Your task to perform on an android device: turn pop-ups on in chrome Image 0: 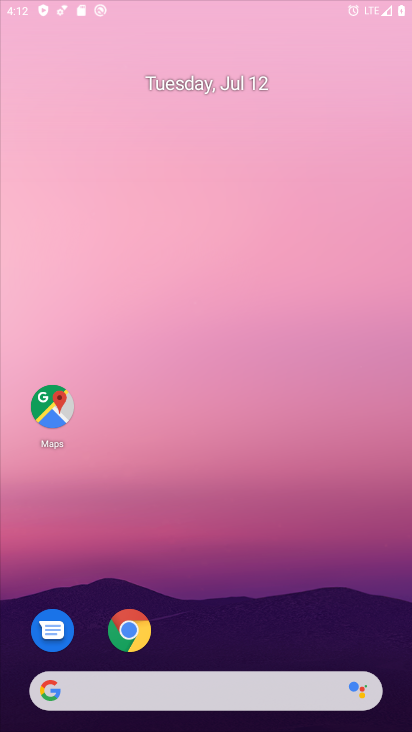
Step 0: click (173, 150)
Your task to perform on an android device: turn pop-ups on in chrome Image 1: 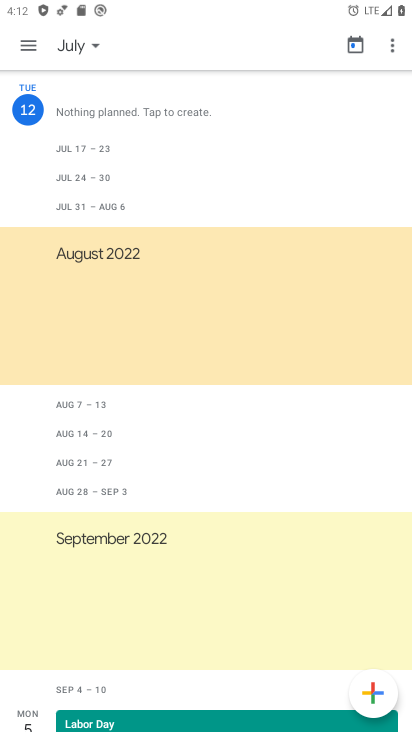
Step 1: drag from (171, 256) to (147, 109)
Your task to perform on an android device: turn pop-ups on in chrome Image 2: 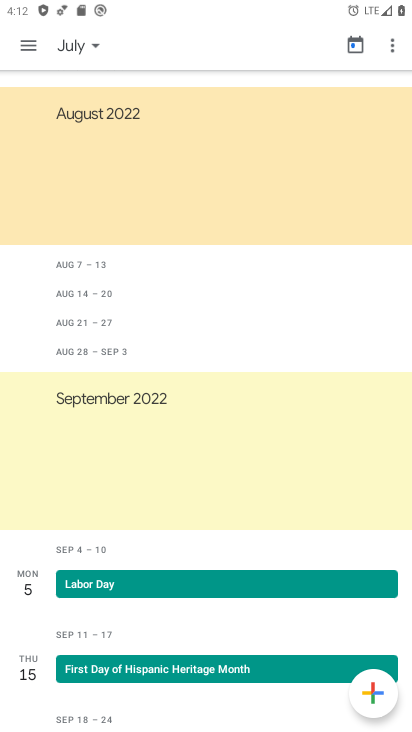
Step 2: press back button
Your task to perform on an android device: turn pop-ups on in chrome Image 3: 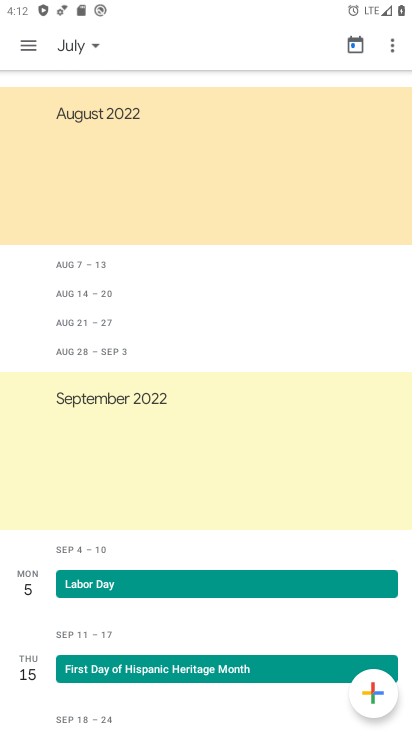
Step 3: press back button
Your task to perform on an android device: turn pop-ups on in chrome Image 4: 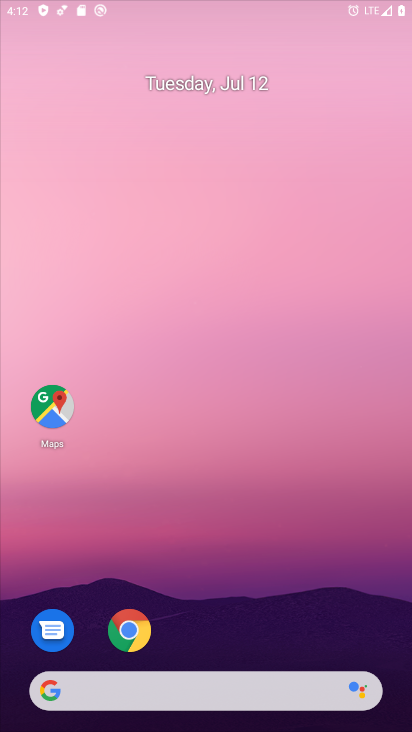
Step 4: press back button
Your task to perform on an android device: turn pop-ups on in chrome Image 5: 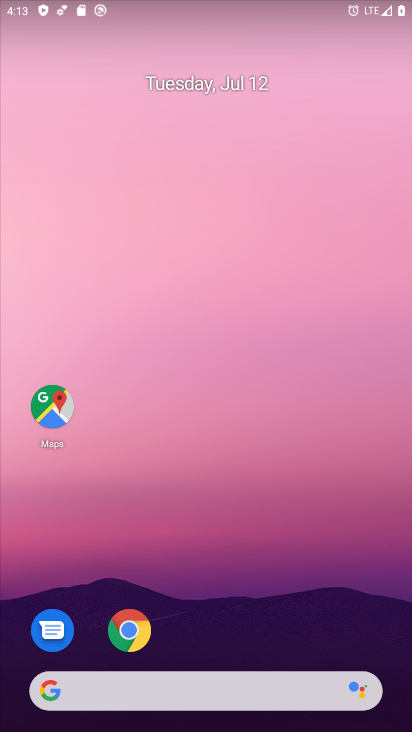
Step 5: drag from (295, 651) to (249, 183)
Your task to perform on an android device: turn pop-ups on in chrome Image 6: 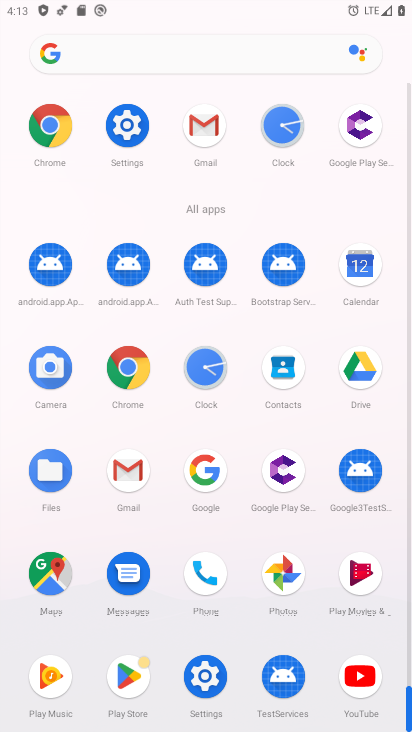
Step 6: click (60, 145)
Your task to perform on an android device: turn pop-ups on in chrome Image 7: 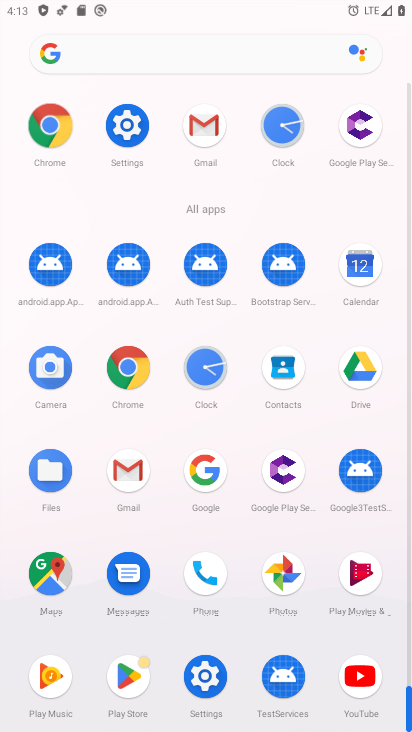
Step 7: click (52, 128)
Your task to perform on an android device: turn pop-ups on in chrome Image 8: 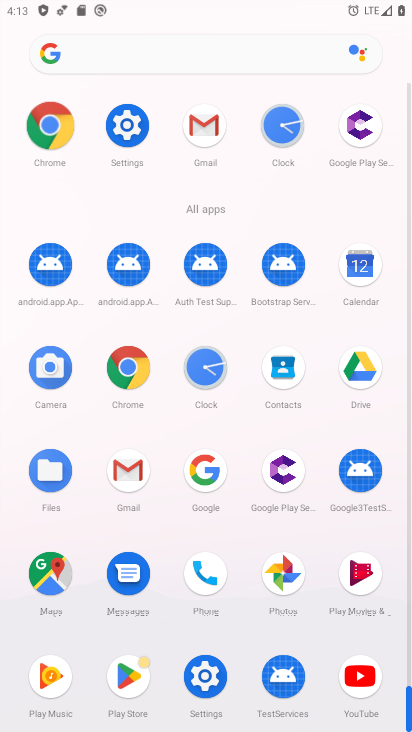
Step 8: click (57, 131)
Your task to perform on an android device: turn pop-ups on in chrome Image 9: 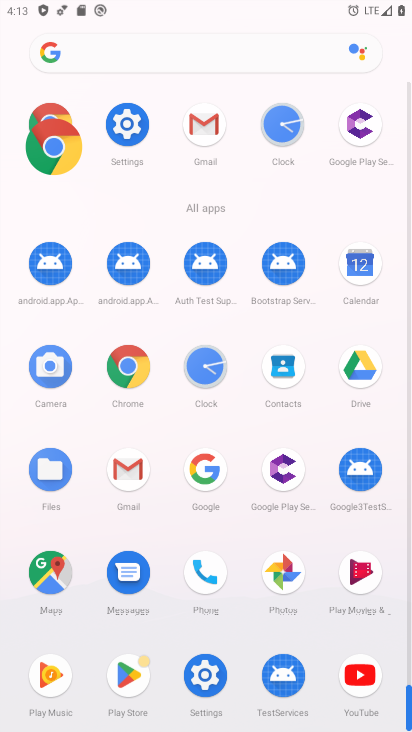
Step 9: click (63, 133)
Your task to perform on an android device: turn pop-ups on in chrome Image 10: 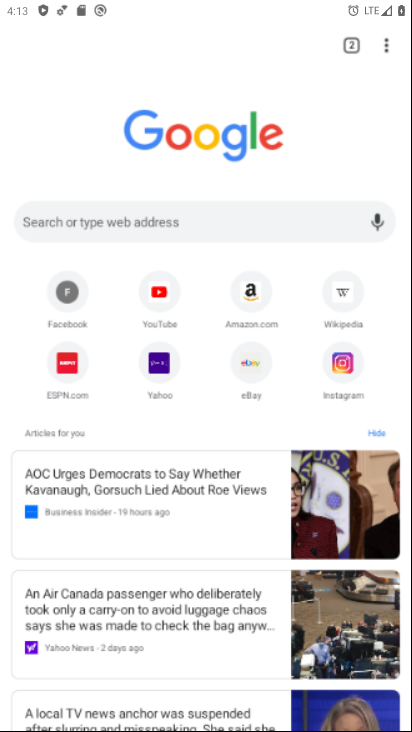
Step 10: click (60, 134)
Your task to perform on an android device: turn pop-ups on in chrome Image 11: 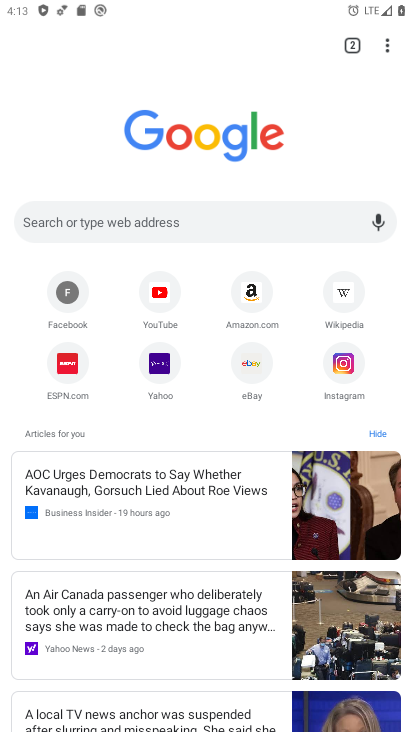
Step 11: drag from (381, 41) to (206, 378)
Your task to perform on an android device: turn pop-ups on in chrome Image 12: 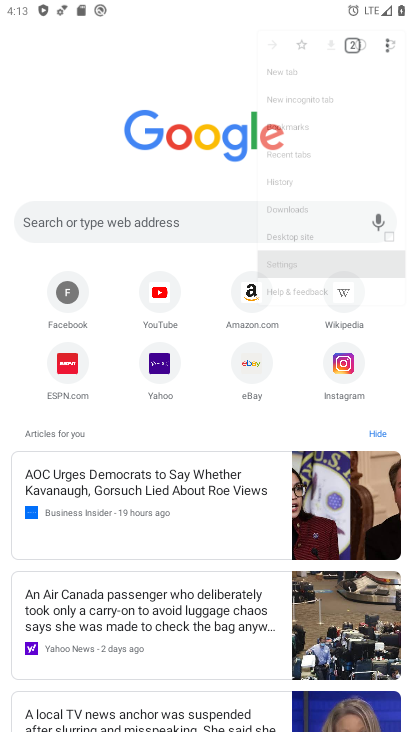
Step 12: click (206, 378)
Your task to perform on an android device: turn pop-ups on in chrome Image 13: 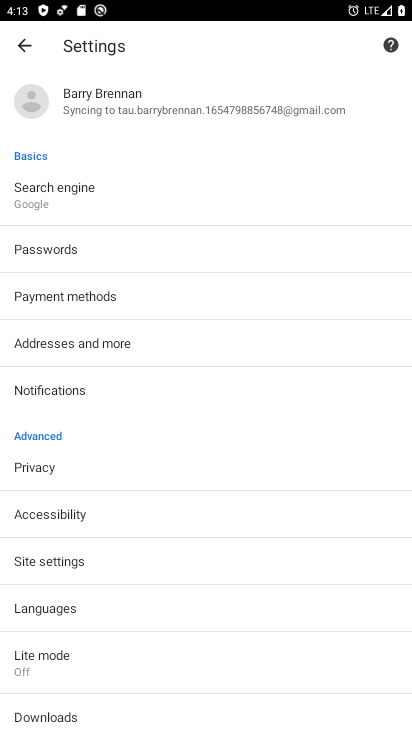
Step 13: drag from (87, 572) to (70, 191)
Your task to perform on an android device: turn pop-ups on in chrome Image 14: 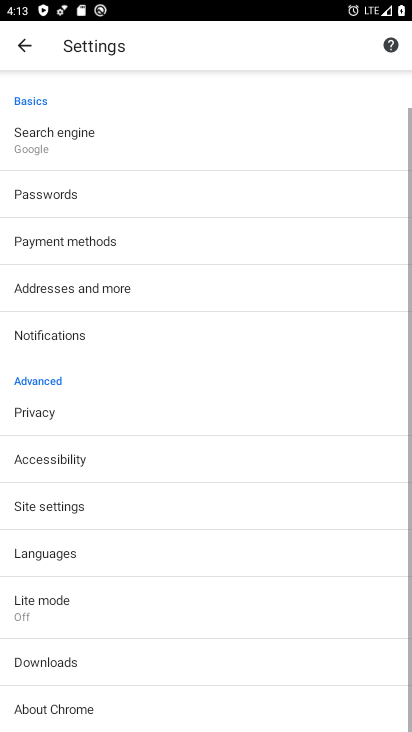
Step 14: click (132, 184)
Your task to perform on an android device: turn pop-ups on in chrome Image 15: 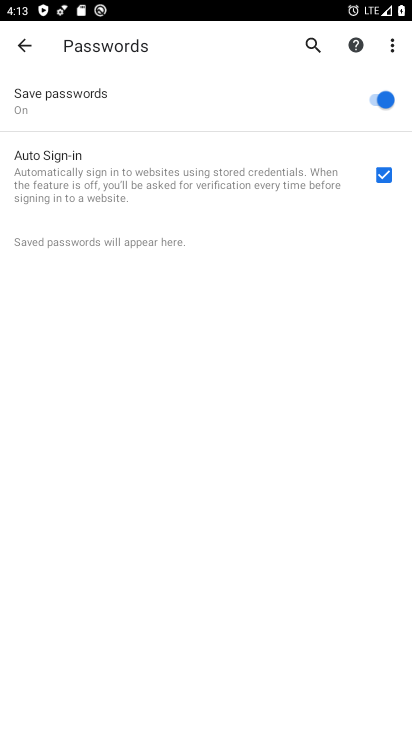
Step 15: click (20, 45)
Your task to perform on an android device: turn pop-ups on in chrome Image 16: 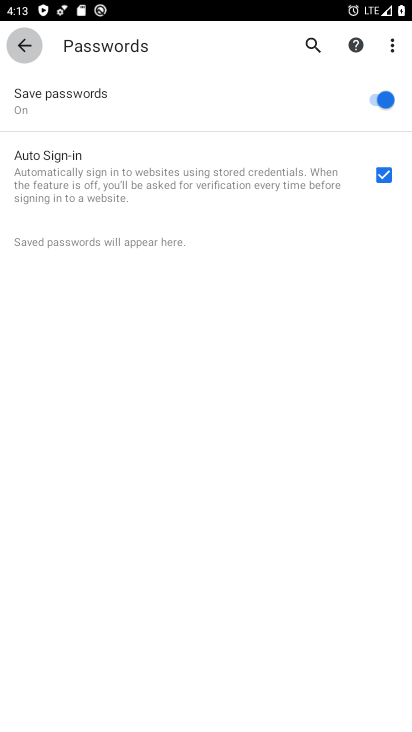
Step 16: click (20, 45)
Your task to perform on an android device: turn pop-ups on in chrome Image 17: 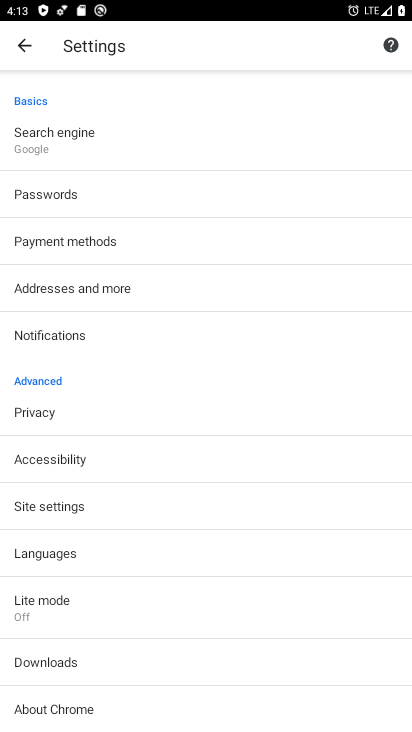
Step 17: click (29, 508)
Your task to perform on an android device: turn pop-ups on in chrome Image 18: 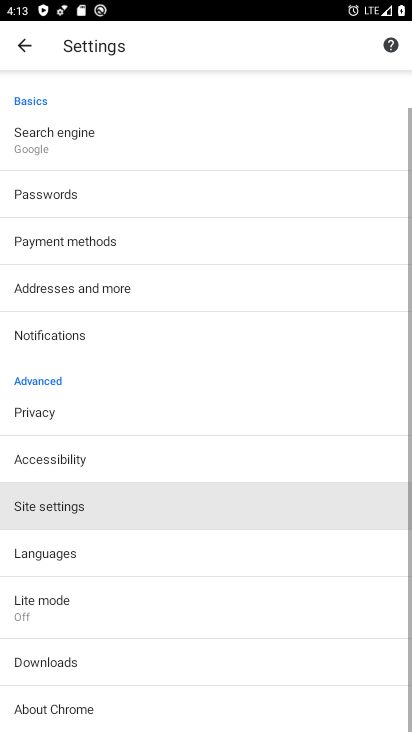
Step 18: click (29, 508)
Your task to perform on an android device: turn pop-ups on in chrome Image 19: 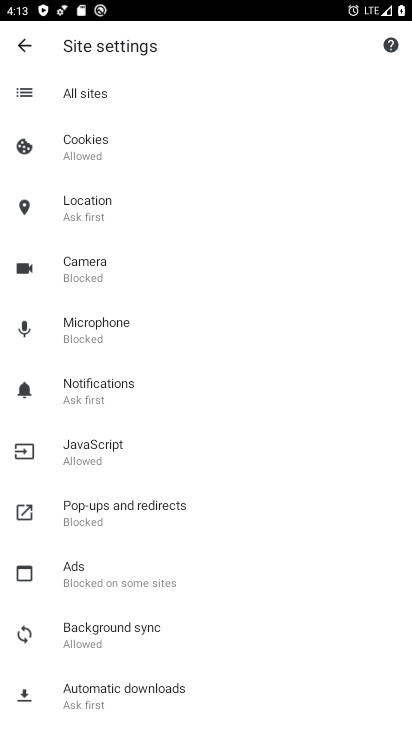
Step 19: click (86, 506)
Your task to perform on an android device: turn pop-ups on in chrome Image 20: 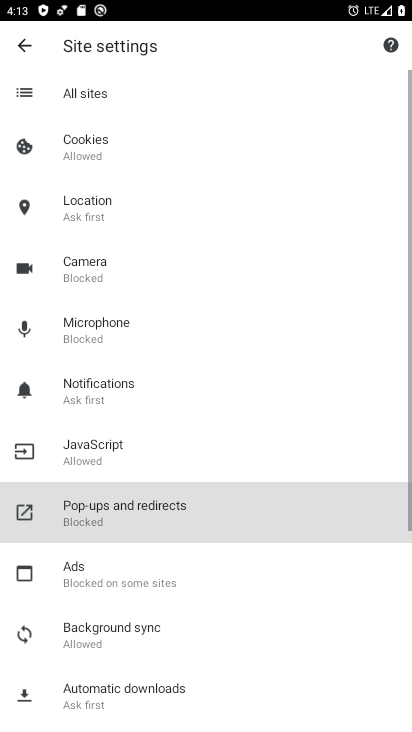
Step 20: click (86, 506)
Your task to perform on an android device: turn pop-ups on in chrome Image 21: 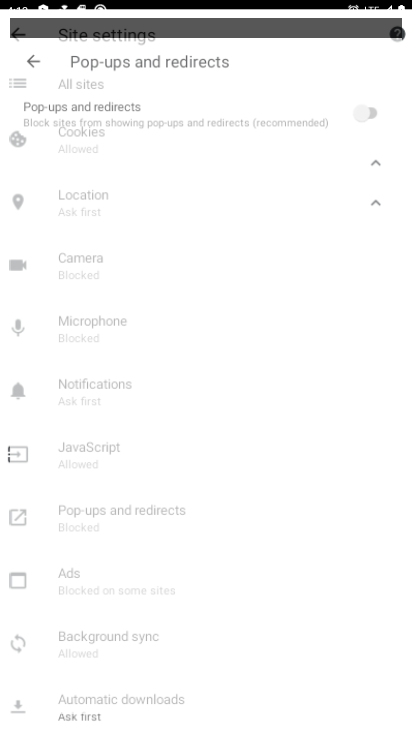
Step 21: click (85, 507)
Your task to perform on an android device: turn pop-ups on in chrome Image 22: 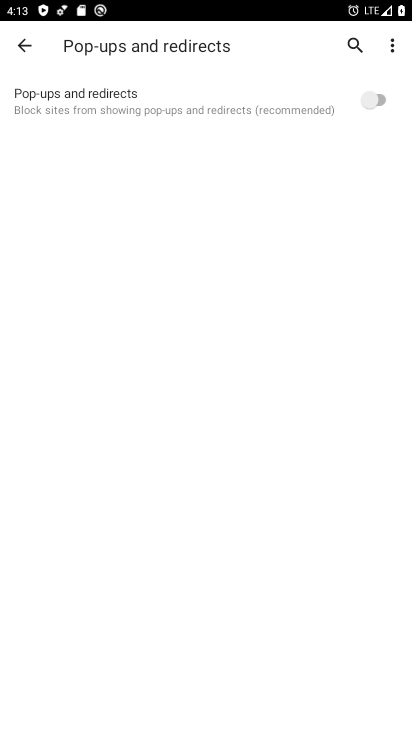
Step 22: click (373, 82)
Your task to perform on an android device: turn pop-ups on in chrome Image 23: 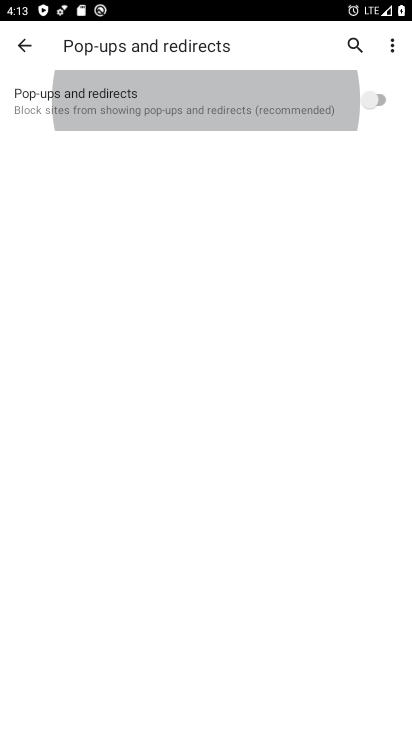
Step 23: click (373, 92)
Your task to perform on an android device: turn pop-ups on in chrome Image 24: 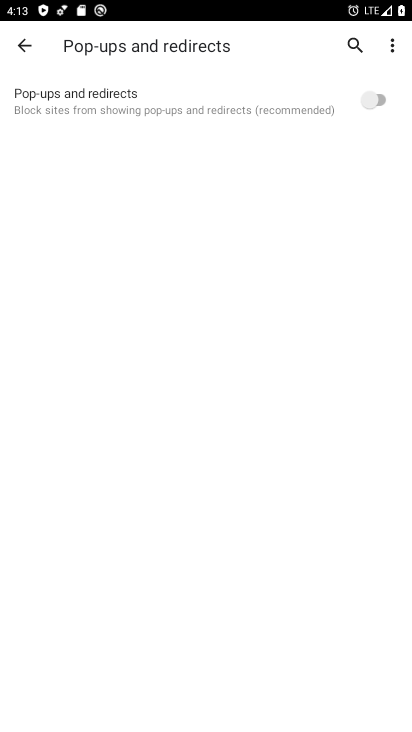
Step 24: click (374, 96)
Your task to perform on an android device: turn pop-ups on in chrome Image 25: 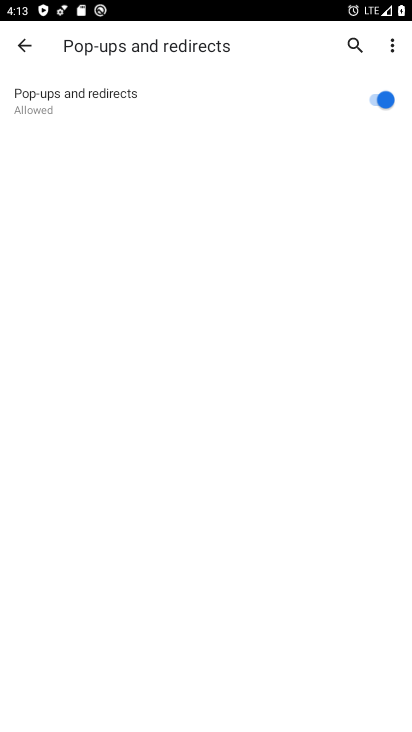
Step 25: task complete